Your task to perform on an android device: Go to eBay Image 0: 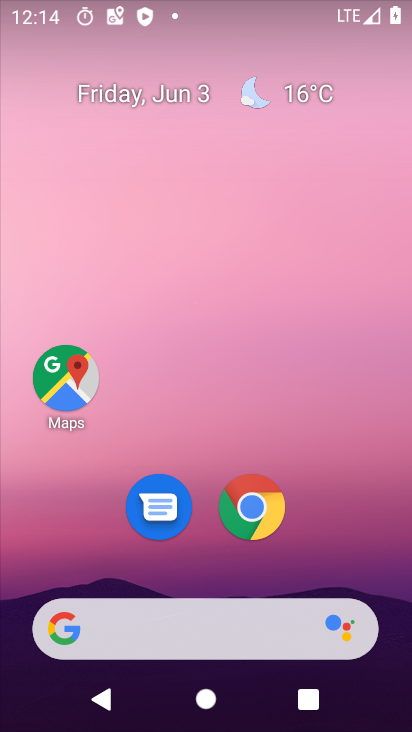
Step 0: drag from (387, 633) to (226, 8)
Your task to perform on an android device: Go to eBay Image 1: 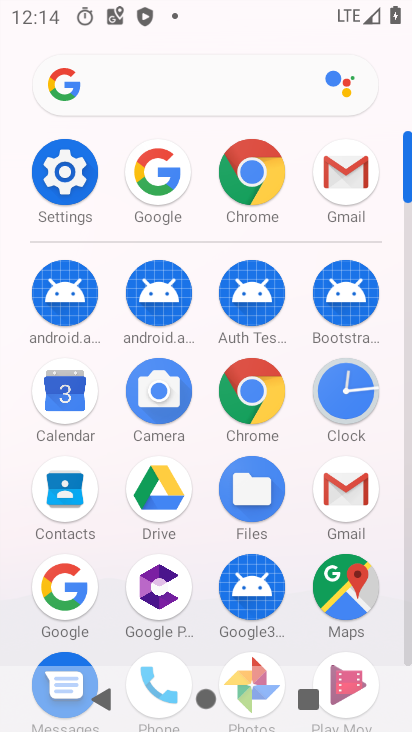
Step 1: click (83, 586)
Your task to perform on an android device: Go to eBay Image 2: 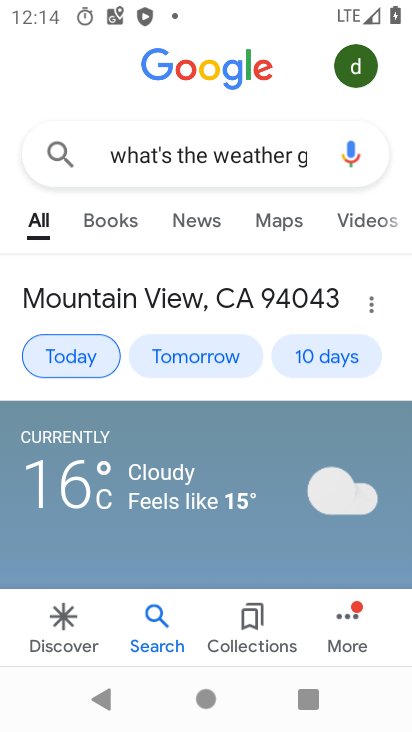
Step 2: press back button
Your task to perform on an android device: Go to eBay Image 3: 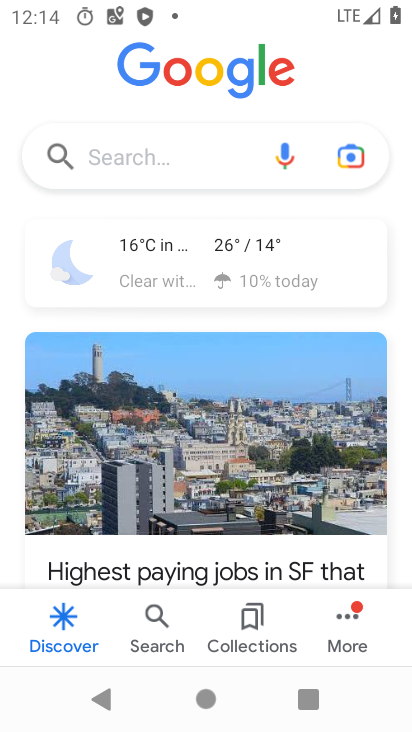
Step 3: click (151, 141)
Your task to perform on an android device: Go to eBay Image 4: 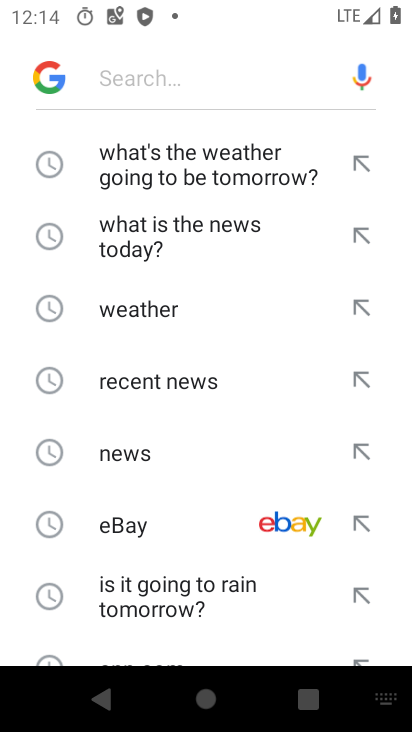
Step 4: click (195, 521)
Your task to perform on an android device: Go to eBay Image 5: 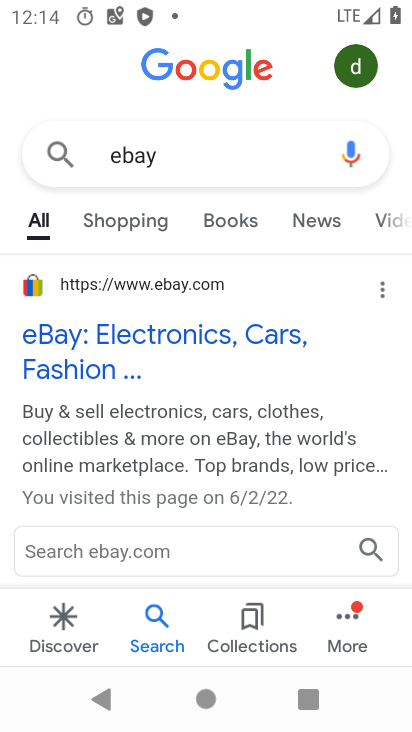
Step 5: task complete